Your task to perform on an android device: see creations saved in the google photos Image 0: 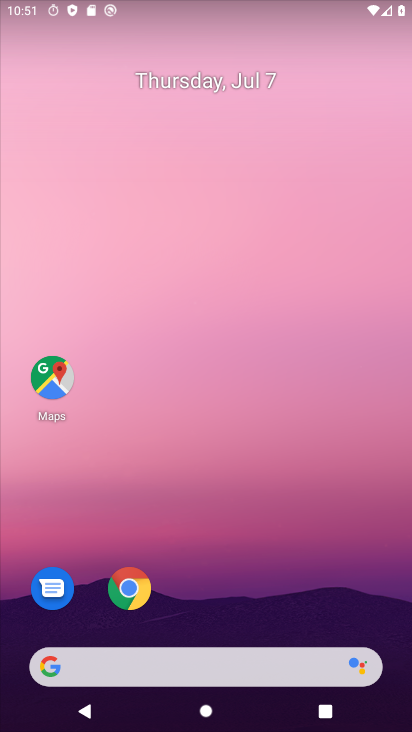
Step 0: drag from (252, 265) to (268, 72)
Your task to perform on an android device: see creations saved in the google photos Image 1: 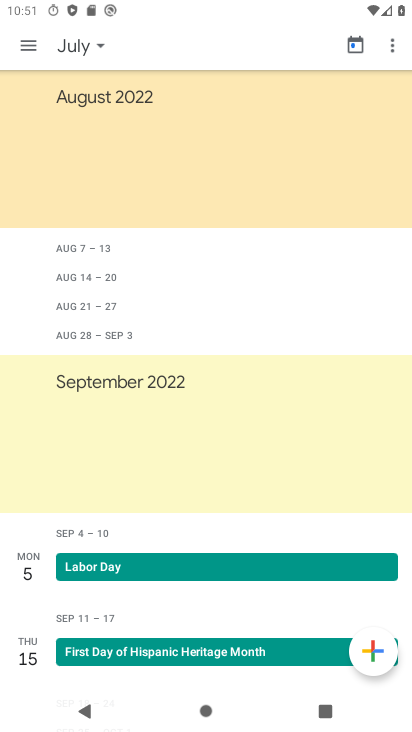
Step 1: press home button
Your task to perform on an android device: see creations saved in the google photos Image 2: 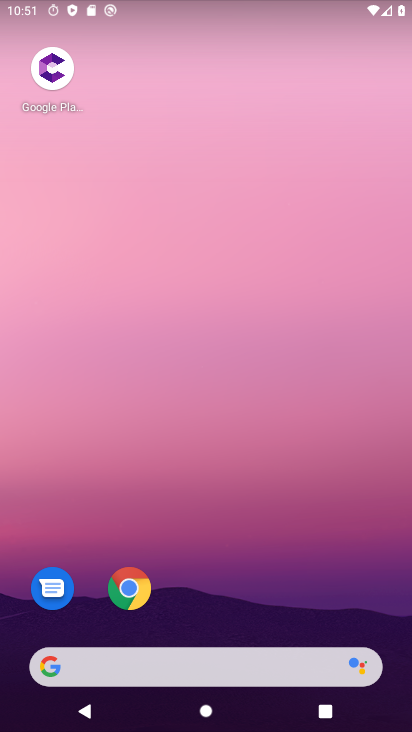
Step 2: drag from (243, 601) to (227, 131)
Your task to perform on an android device: see creations saved in the google photos Image 3: 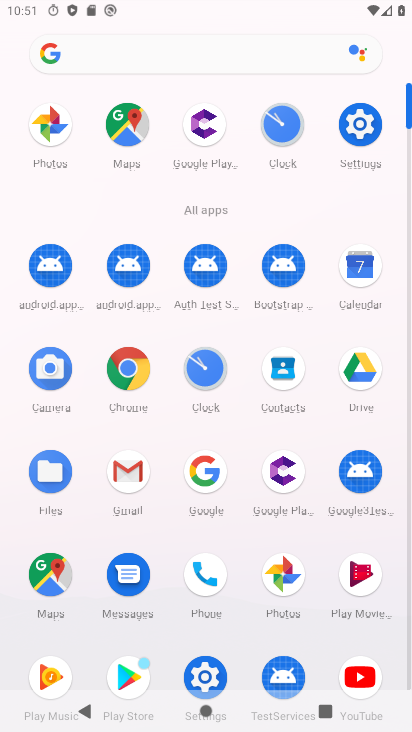
Step 3: click (275, 579)
Your task to perform on an android device: see creations saved in the google photos Image 4: 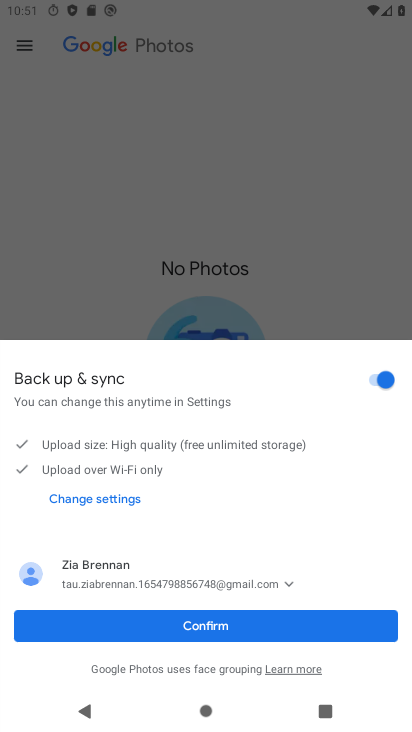
Step 4: click (241, 628)
Your task to perform on an android device: see creations saved in the google photos Image 5: 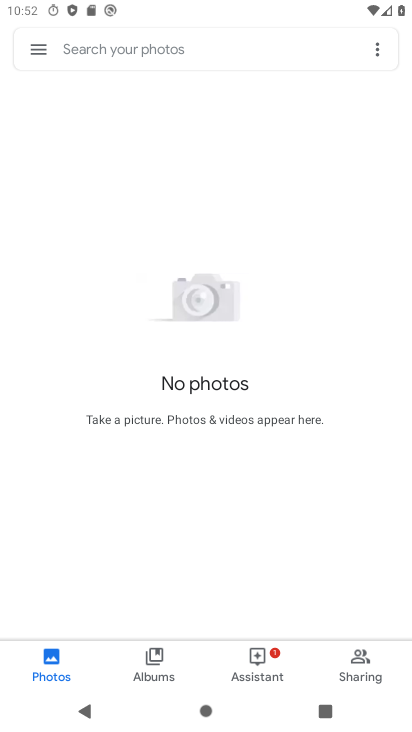
Step 5: click (256, 666)
Your task to perform on an android device: see creations saved in the google photos Image 6: 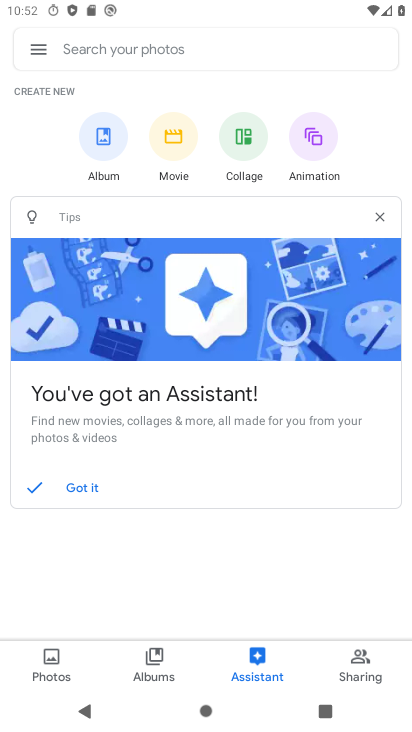
Step 6: click (150, 652)
Your task to perform on an android device: see creations saved in the google photos Image 7: 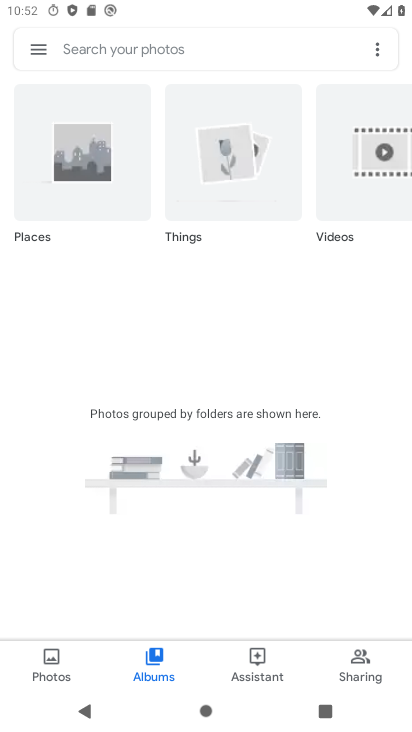
Step 7: task complete